Your task to perform on an android device: change the clock display to digital Image 0: 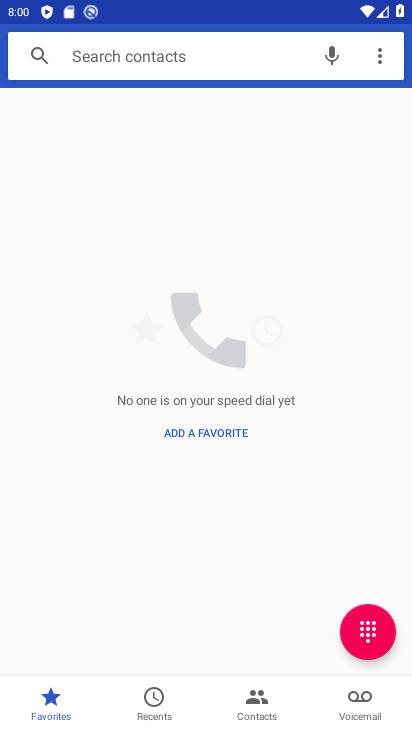
Step 0: press home button
Your task to perform on an android device: change the clock display to digital Image 1: 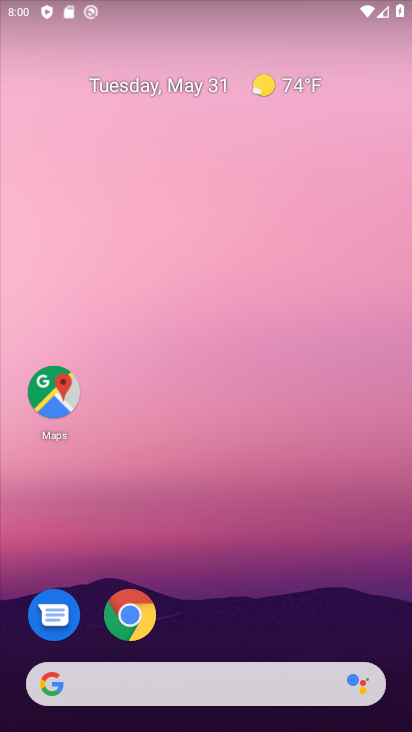
Step 1: drag from (203, 677) to (324, 94)
Your task to perform on an android device: change the clock display to digital Image 2: 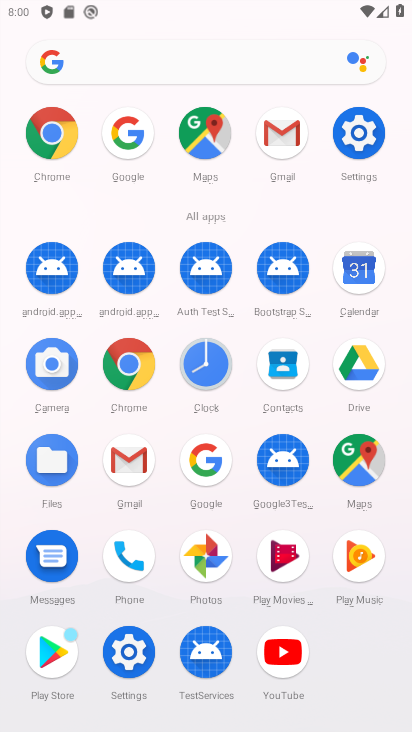
Step 2: click (210, 365)
Your task to perform on an android device: change the clock display to digital Image 3: 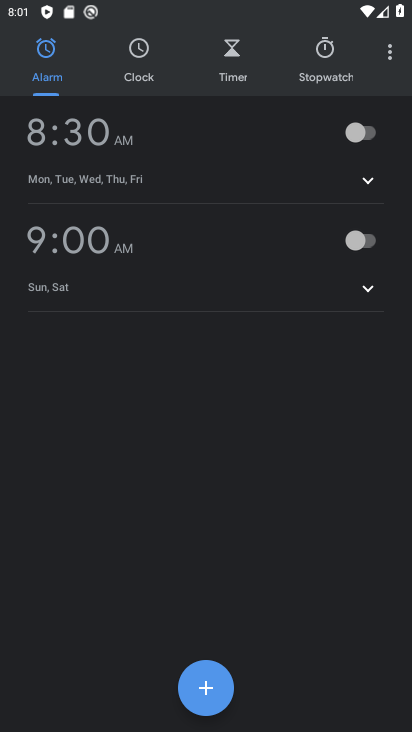
Step 3: click (389, 55)
Your task to perform on an android device: change the clock display to digital Image 4: 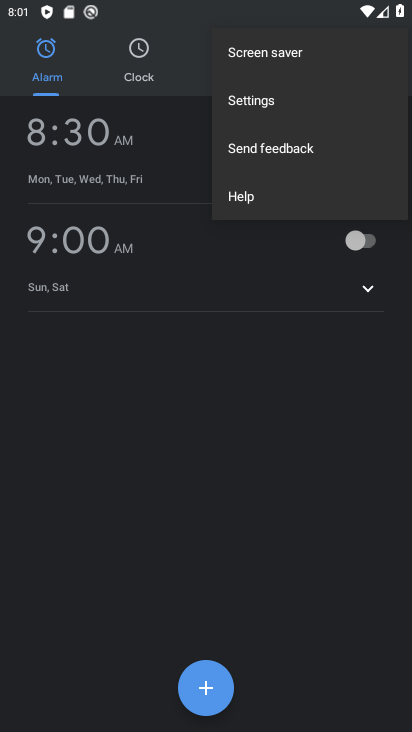
Step 4: click (254, 102)
Your task to perform on an android device: change the clock display to digital Image 5: 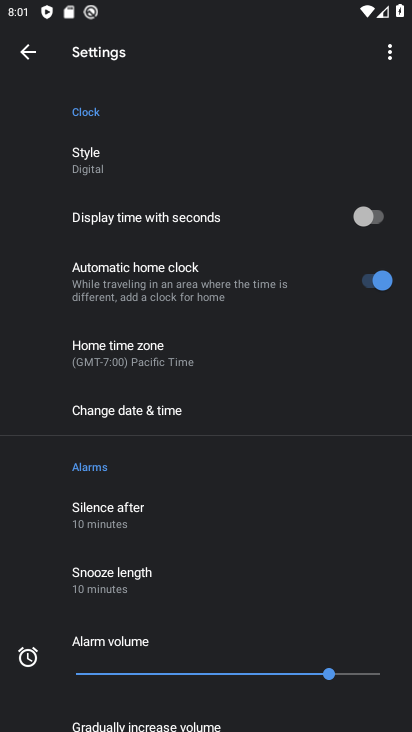
Step 5: task complete